Your task to perform on an android device: open a bookmark in the chrome app Image 0: 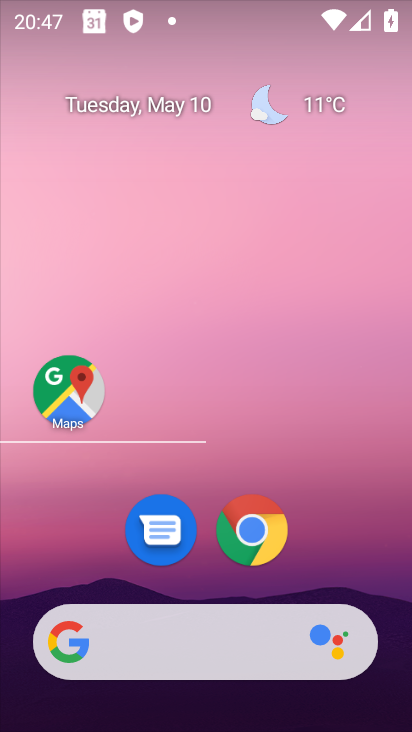
Step 0: click (286, 248)
Your task to perform on an android device: open a bookmark in the chrome app Image 1: 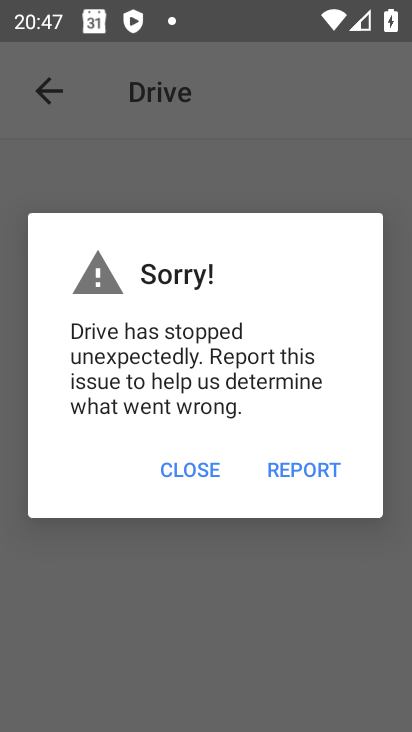
Step 1: press home button
Your task to perform on an android device: open a bookmark in the chrome app Image 2: 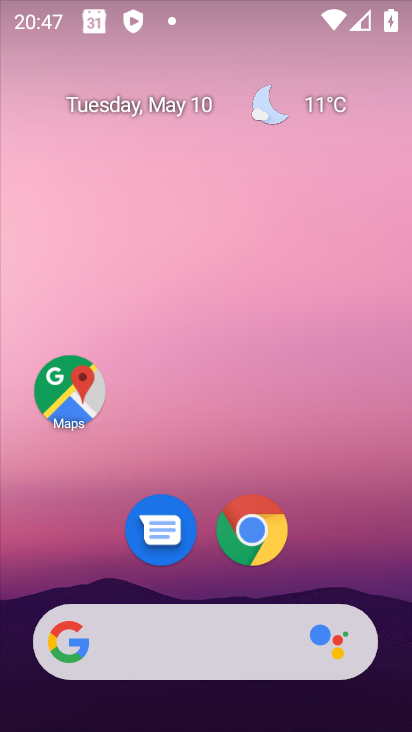
Step 2: click (264, 559)
Your task to perform on an android device: open a bookmark in the chrome app Image 3: 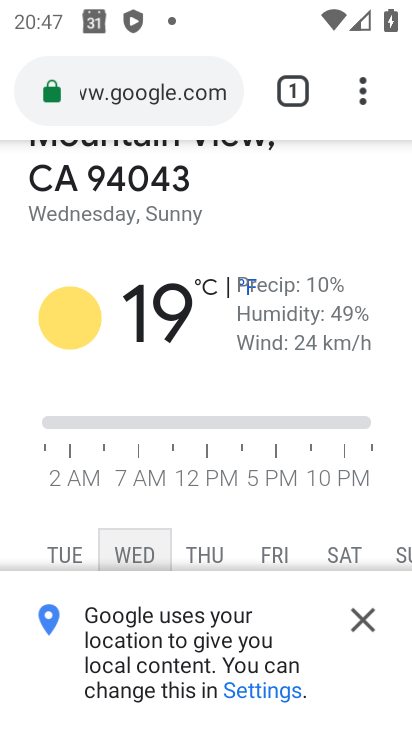
Step 3: click (358, 99)
Your task to perform on an android device: open a bookmark in the chrome app Image 4: 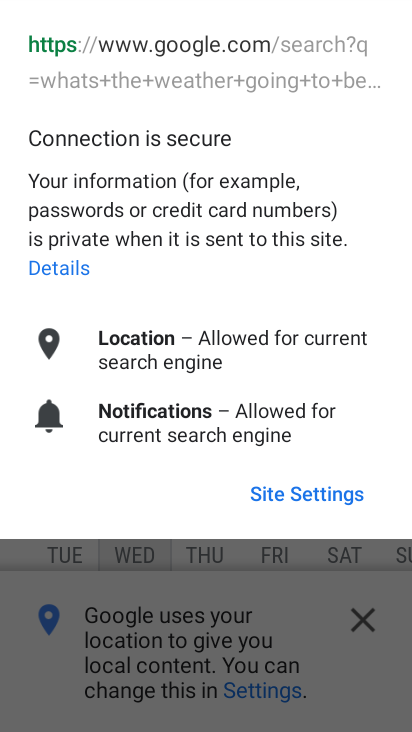
Step 4: press back button
Your task to perform on an android device: open a bookmark in the chrome app Image 5: 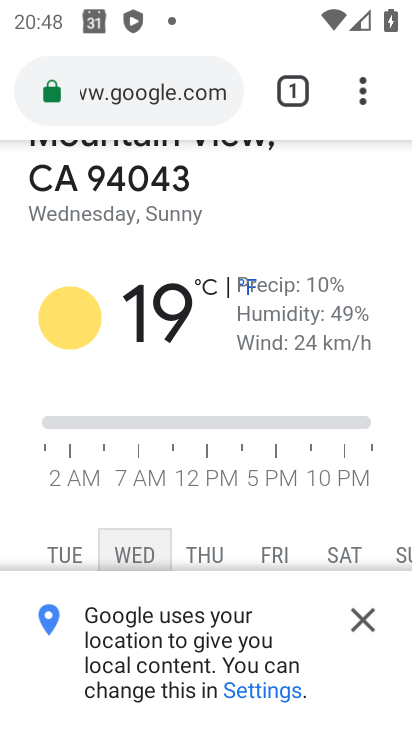
Step 5: drag from (358, 100) to (181, 344)
Your task to perform on an android device: open a bookmark in the chrome app Image 6: 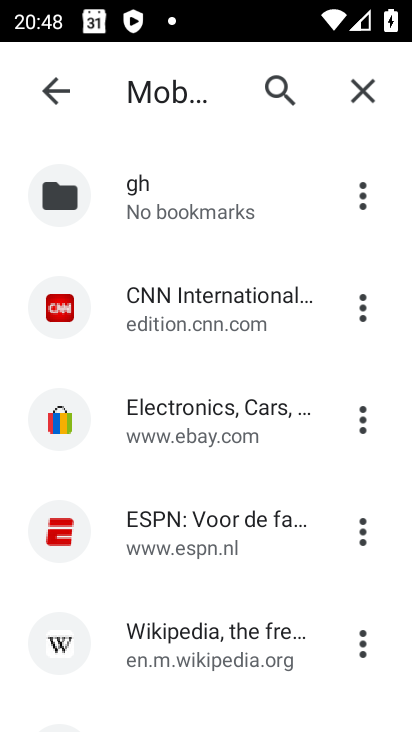
Step 6: click (165, 320)
Your task to perform on an android device: open a bookmark in the chrome app Image 7: 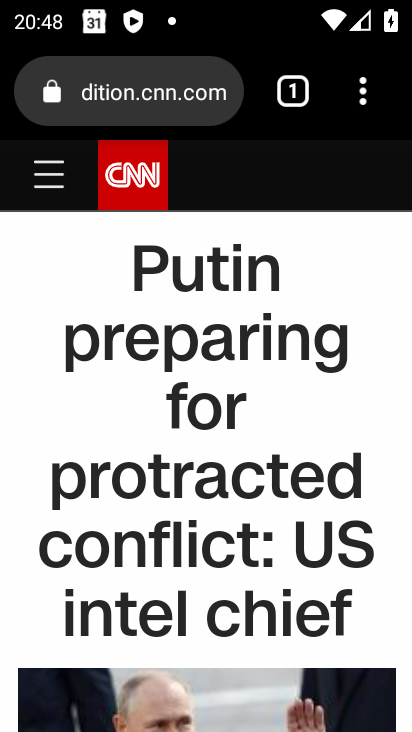
Step 7: task complete